Your task to perform on an android device: set default search engine in the chrome app Image 0: 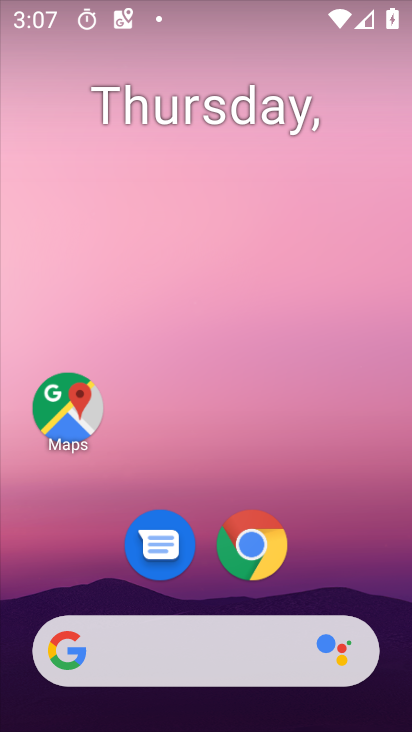
Step 0: click (251, 537)
Your task to perform on an android device: set default search engine in the chrome app Image 1: 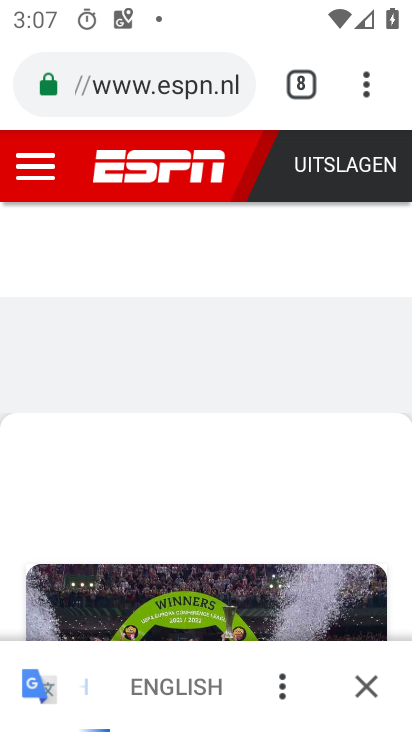
Step 1: click (365, 90)
Your task to perform on an android device: set default search engine in the chrome app Image 2: 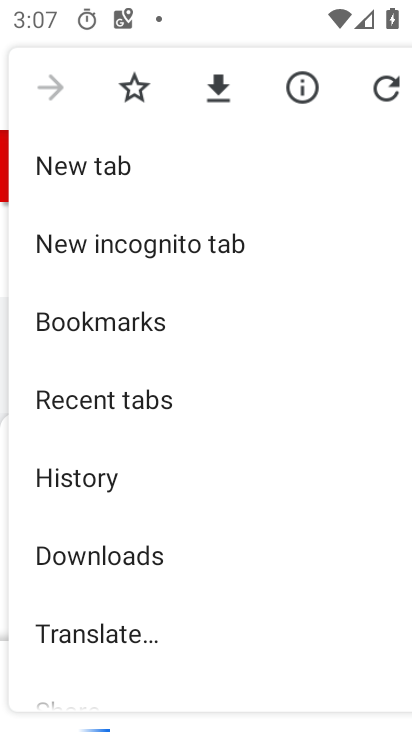
Step 2: drag from (131, 670) to (129, 254)
Your task to perform on an android device: set default search engine in the chrome app Image 3: 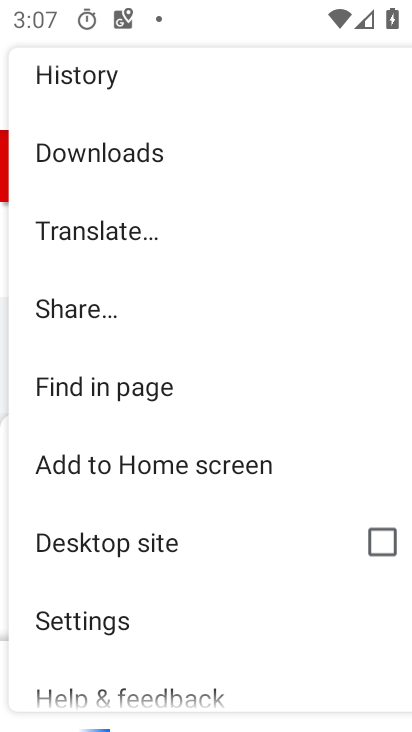
Step 3: click (99, 621)
Your task to perform on an android device: set default search engine in the chrome app Image 4: 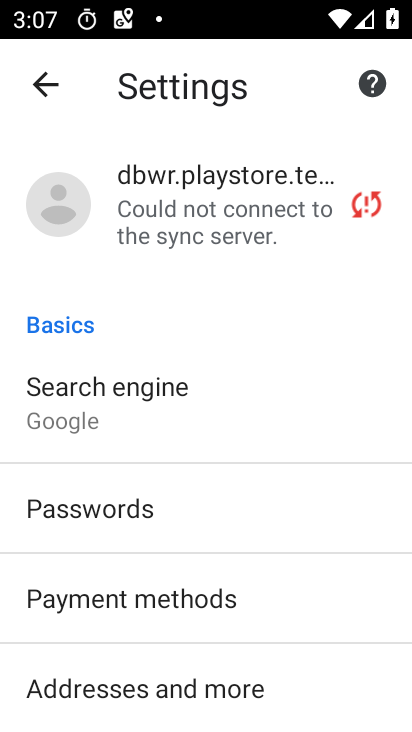
Step 4: drag from (120, 676) to (122, 293)
Your task to perform on an android device: set default search engine in the chrome app Image 5: 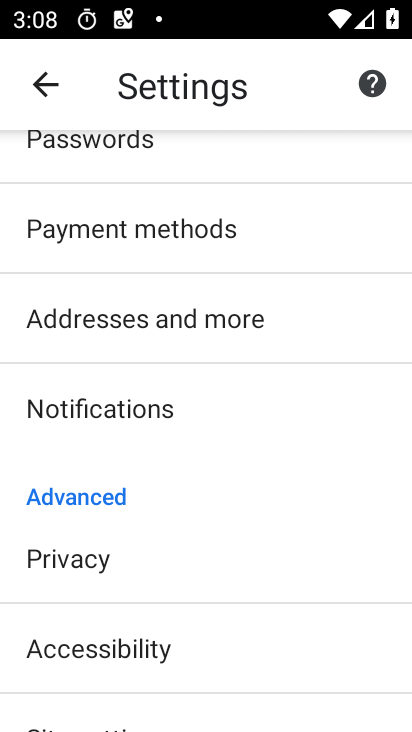
Step 5: drag from (186, 174) to (186, 544)
Your task to perform on an android device: set default search engine in the chrome app Image 6: 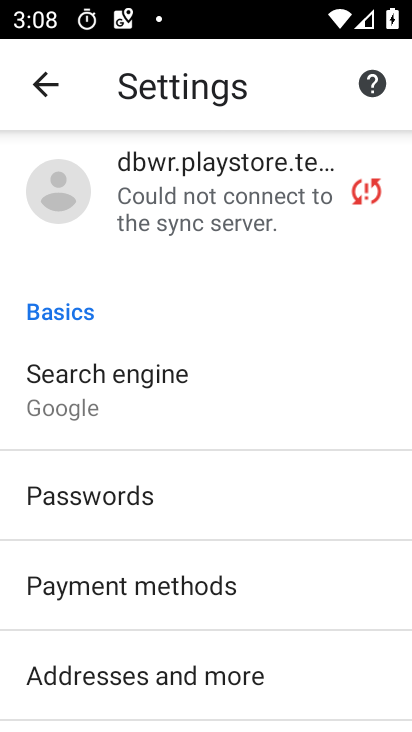
Step 6: click (56, 387)
Your task to perform on an android device: set default search engine in the chrome app Image 7: 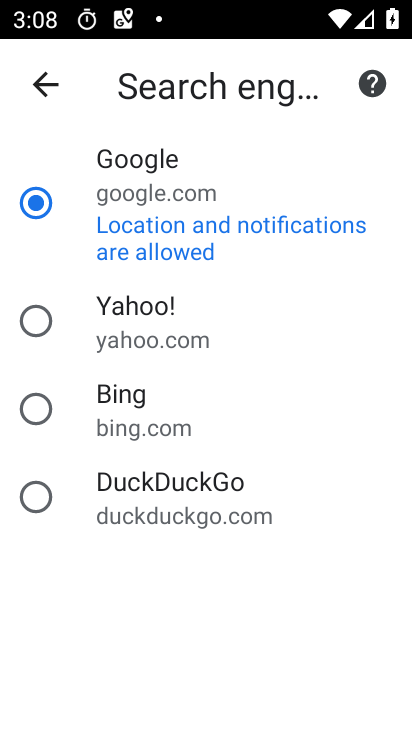
Step 7: click (31, 321)
Your task to perform on an android device: set default search engine in the chrome app Image 8: 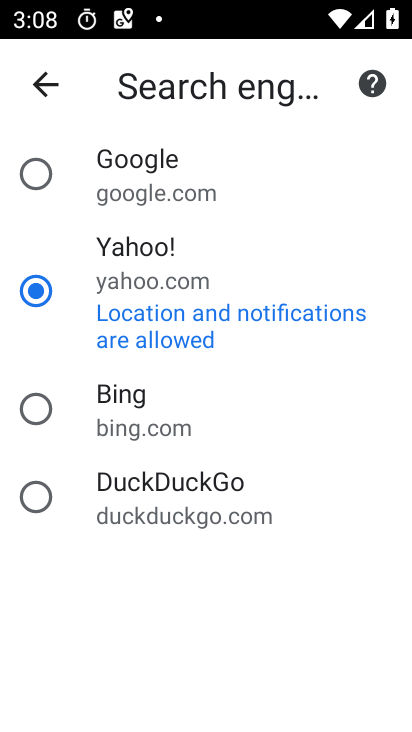
Step 8: task complete